Your task to perform on an android device: clear history in the chrome app Image 0: 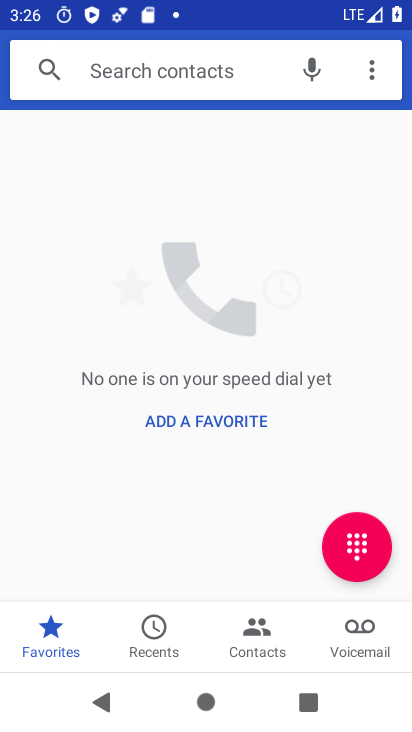
Step 0: press home button
Your task to perform on an android device: clear history in the chrome app Image 1: 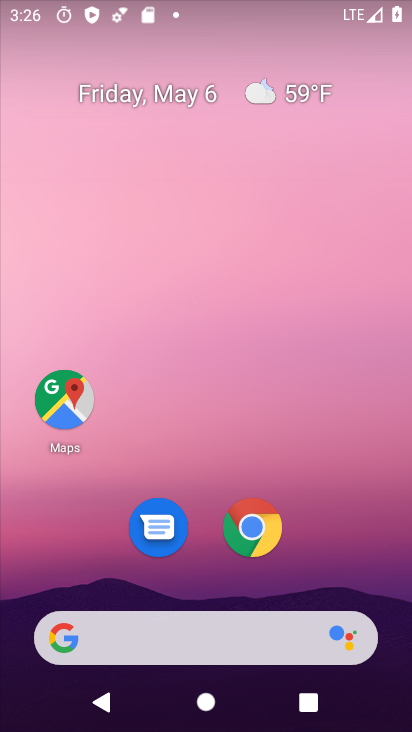
Step 1: click (246, 563)
Your task to perform on an android device: clear history in the chrome app Image 2: 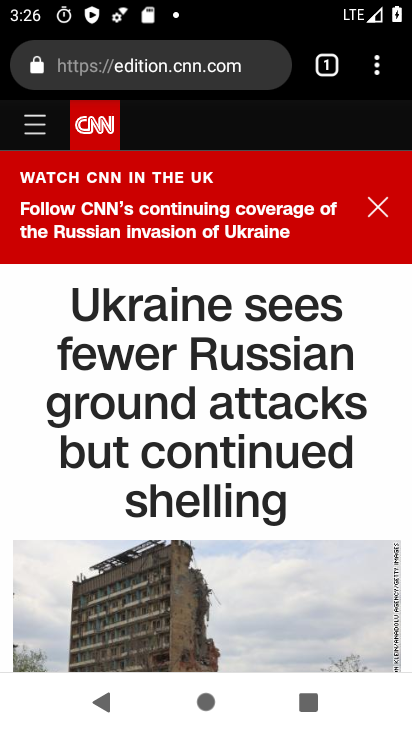
Step 2: click (381, 59)
Your task to perform on an android device: clear history in the chrome app Image 3: 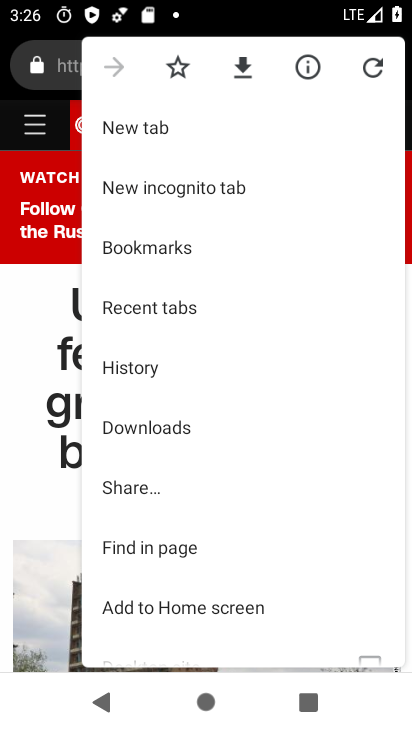
Step 3: click (163, 382)
Your task to perform on an android device: clear history in the chrome app Image 4: 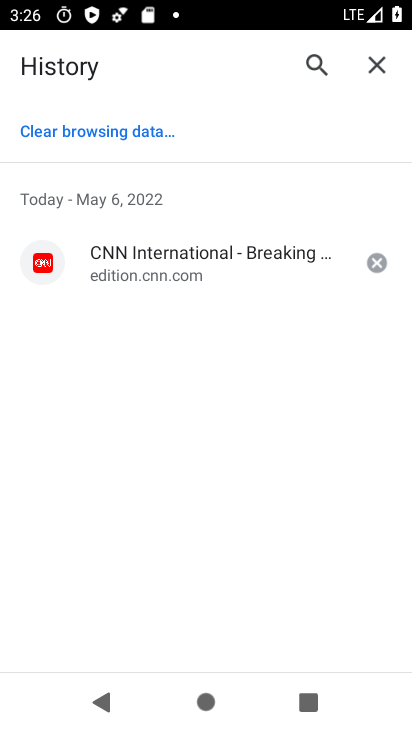
Step 4: click (75, 124)
Your task to perform on an android device: clear history in the chrome app Image 5: 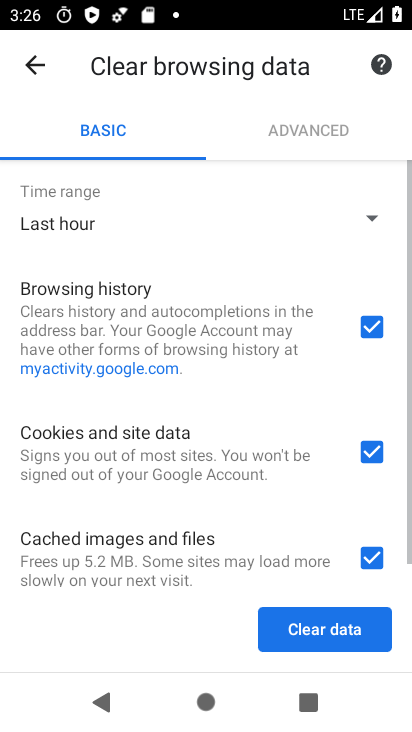
Step 5: click (309, 630)
Your task to perform on an android device: clear history in the chrome app Image 6: 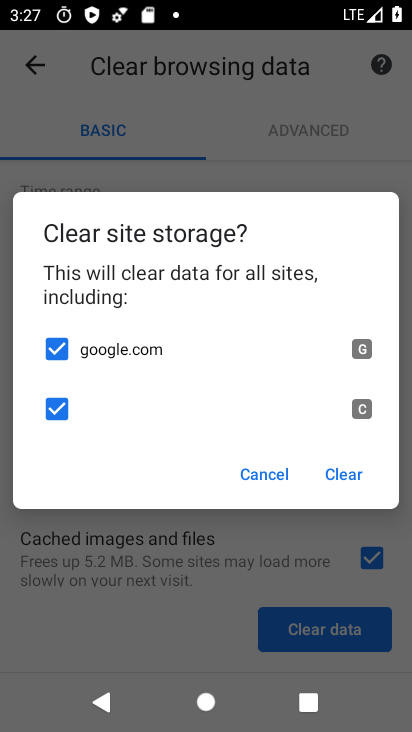
Step 6: click (358, 475)
Your task to perform on an android device: clear history in the chrome app Image 7: 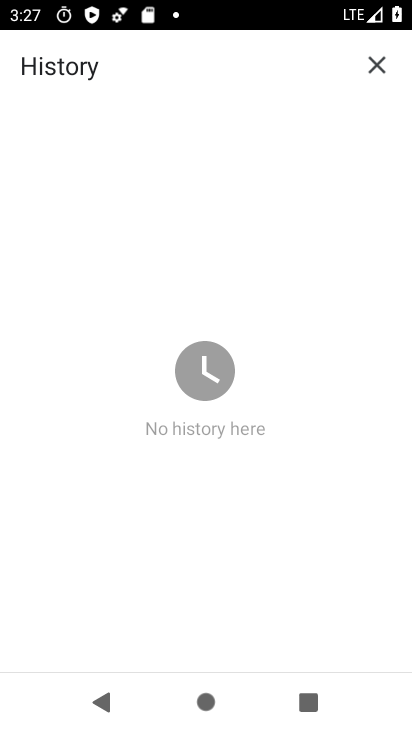
Step 7: task complete